Your task to perform on an android device: Go to Google maps Image 0: 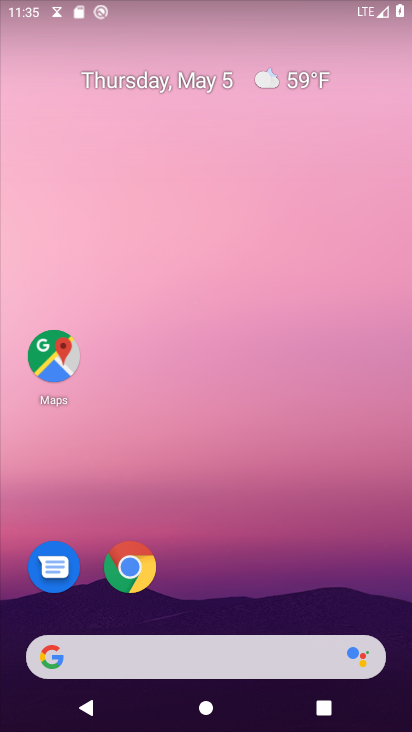
Step 0: click (47, 357)
Your task to perform on an android device: Go to Google maps Image 1: 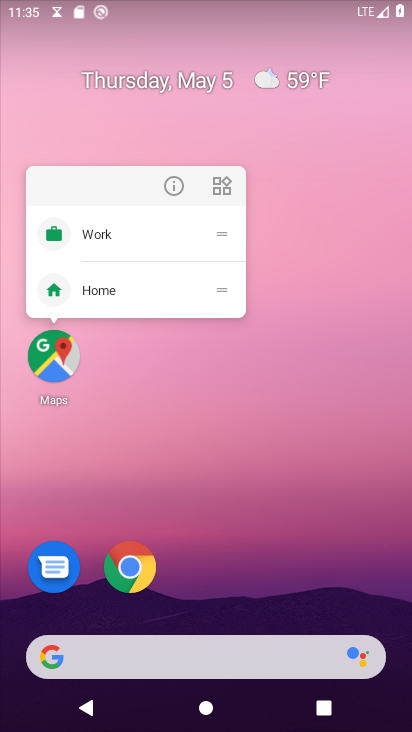
Step 1: click (48, 358)
Your task to perform on an android device: Go to Google maps Image 2: 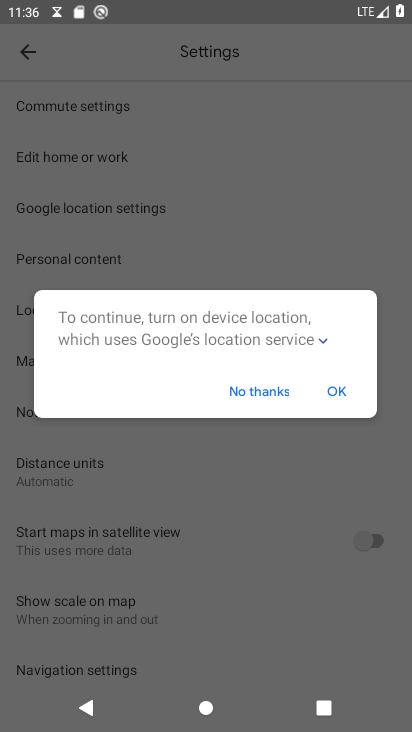
Step 2: click (255, 389)
Your task to perform on an android device: Go to Google maps Image 3: 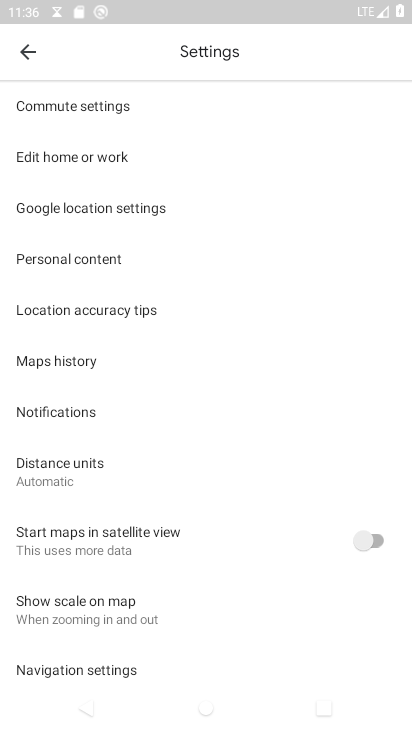
Step 3: click (29, 54)
Your task to perform on an android device: Go to Google maps Image 4: 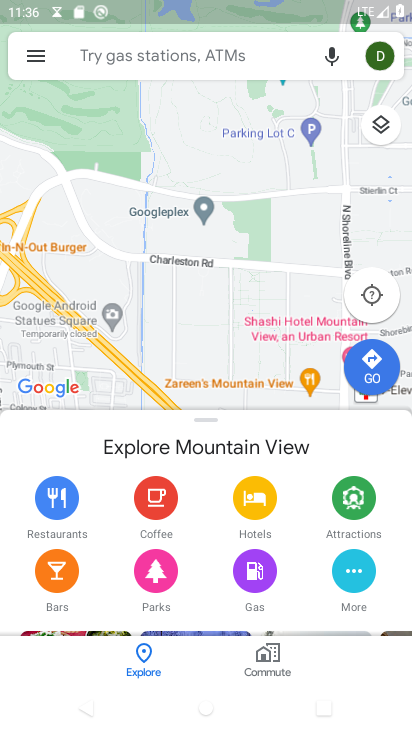
Step 4: task complete